Your task to perform on an android device: Open Google Chrome and click the shortcut for Amazon.com Image 0: 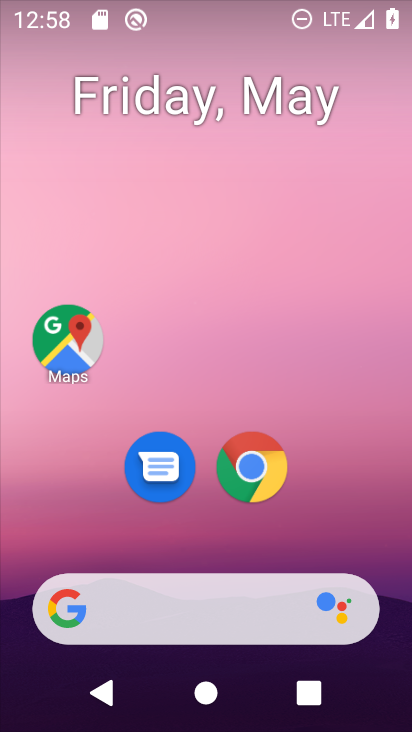
Step 0: drag from (301, 573) to (322, 12)
Your task to perform on an android device: Open Google Chrome and click the shortcut for Amazon.com Image 1: 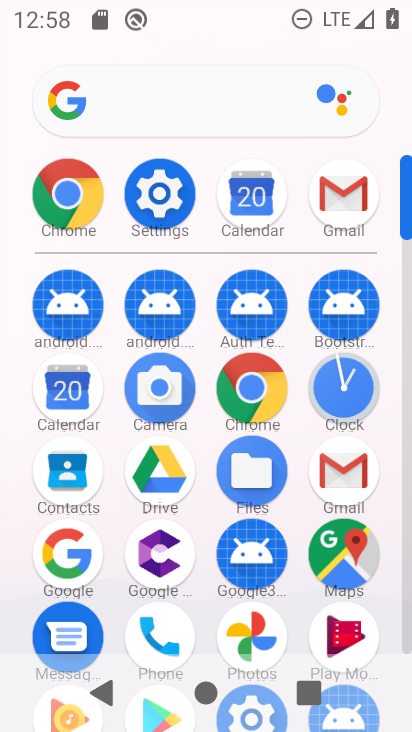
Step 1: click (252, 367)
Your task to perform on an android device: Open Google Chrome and click the shortcut for Amazon.com Image 2: 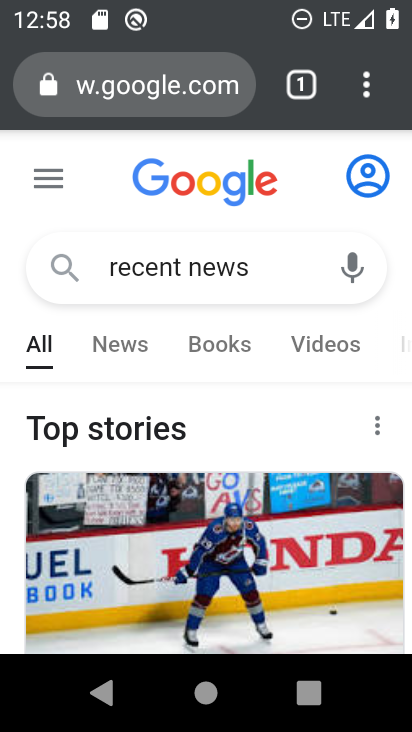
Step 2: drag from (372, 90) to (213, 169)
Your task to perform on an android device: Open Google Chrome and click the shortcut for Amazon.com Image 3: 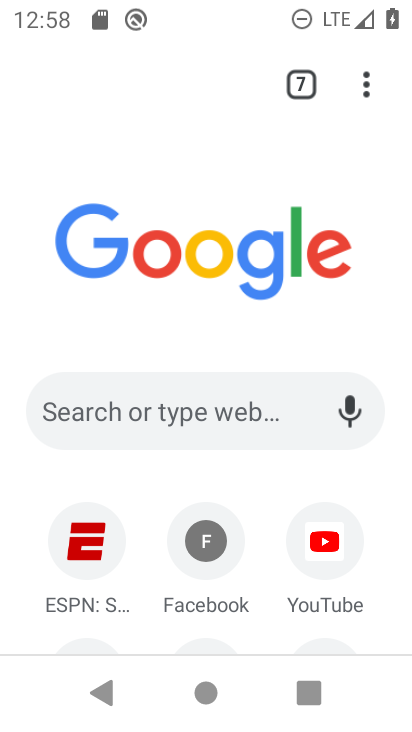
Step 3: drag from (367, 522) to (372, 42)
Your task to perform on an android device: Open Google Chrome and click the shortcut for Amazon.com Image 4: 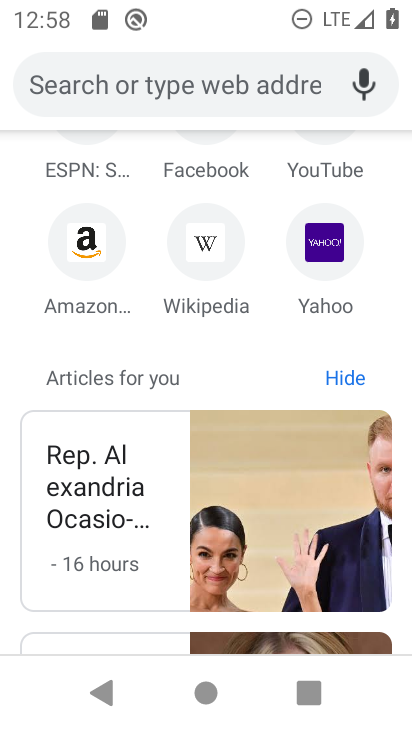
Step 4: click (103, 249)
Your task to perform on an android device: Open Google Chrome and click the shortcut for Amazon.com Image 5: 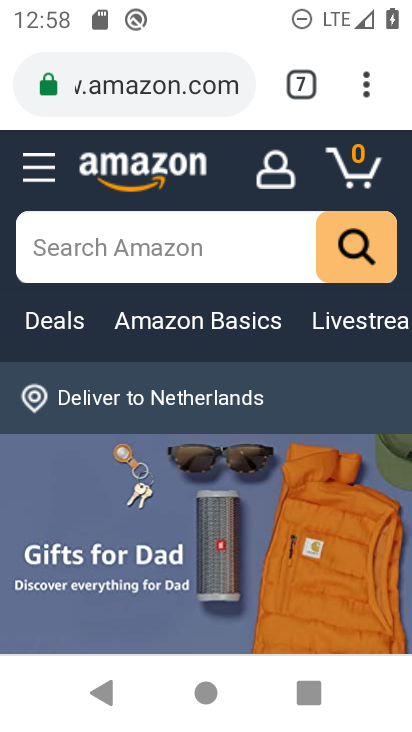
Step 5: drag from (369, 83) to (207, 355)
Your task to perform on an android device: Open Google Chrome and click the shortcut for Amazon.com Image 6: 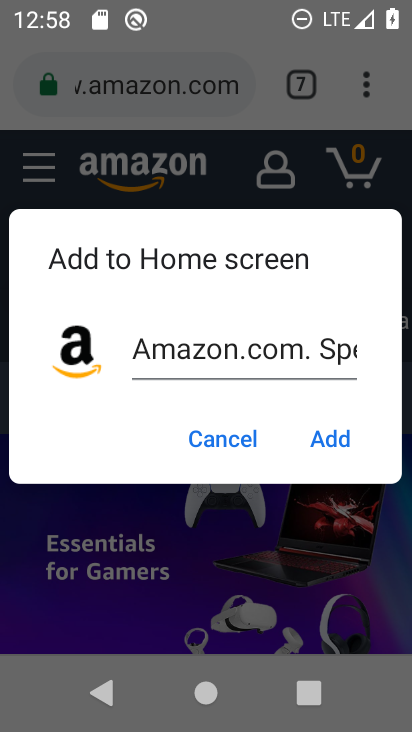
Step 6: click (323, 441)
Your task to perform on an android device: Open Google Chrome and click the shortcut for Amazon.com Image 7: 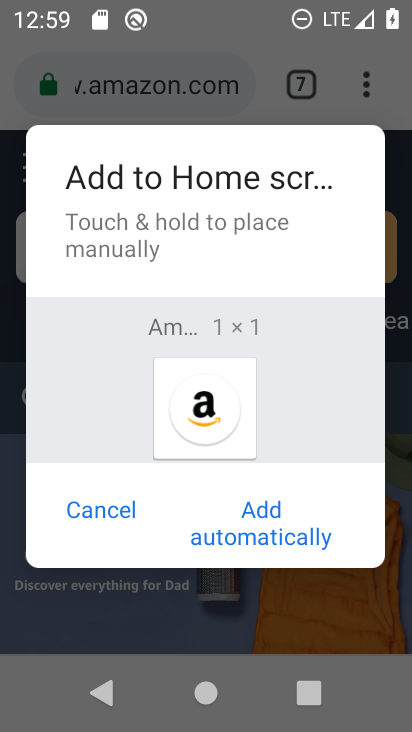
Step 7: click (235, 501)
Your task to perform on an android device: Open Google Chrome and click the shortcut for Amazon.com Image 8: 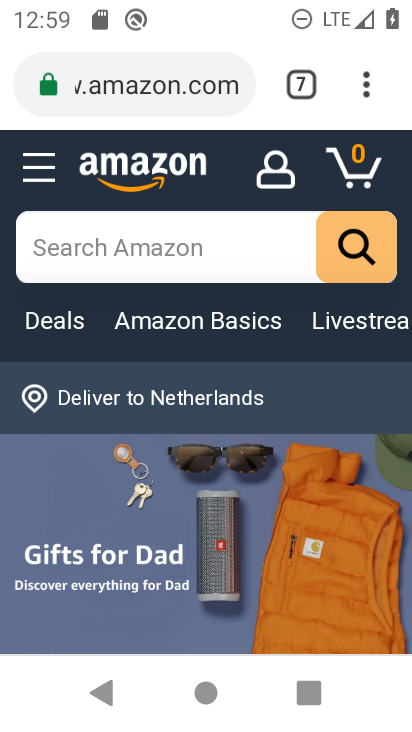
Step 8: task complete